Your task to perform on an android device: Go to privacy settings Image 0: 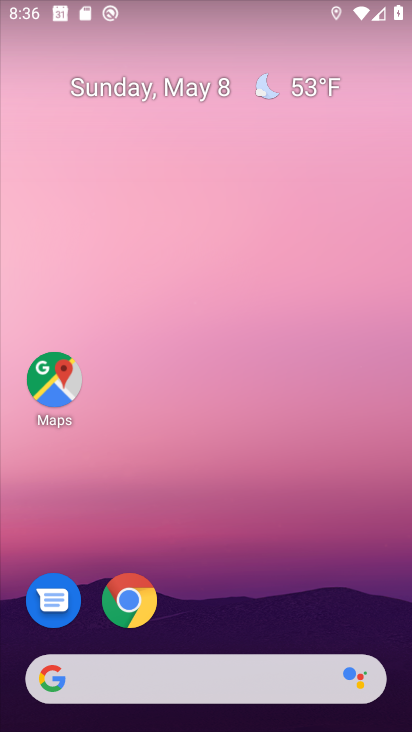
Step 0: drag from (213, 624) to (288, 146)
Your task to perform on an android device: Go to privacy settings Image 1: 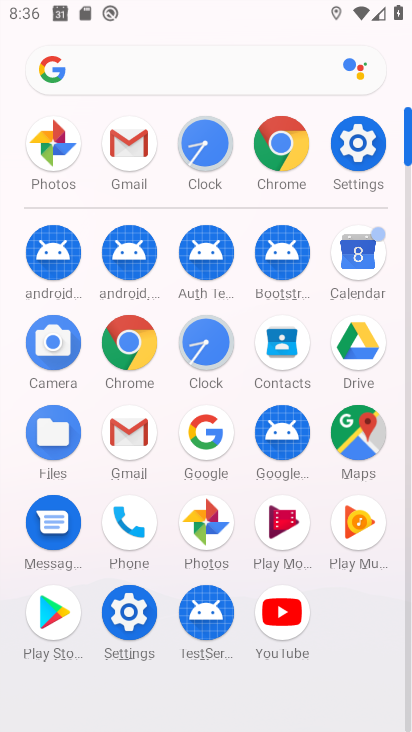
Step 1: click (368, 150)
Your task to perform on an android device: Go to privacy settings Image 2: 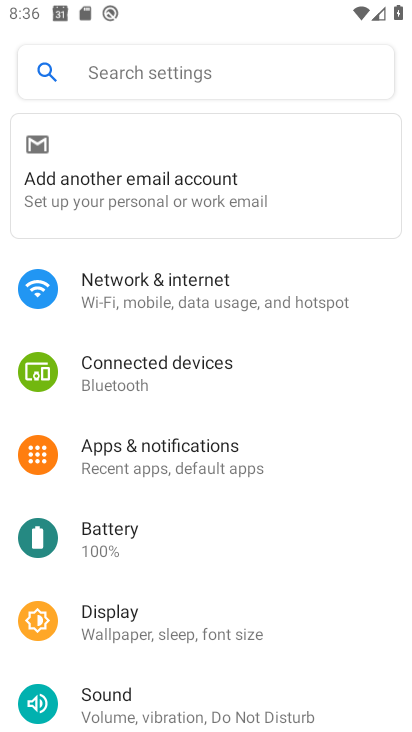
Step 2: drag from (169, 569) to (169, 177)
Your task to perform on an android device: Go to privacy settings Image 3: 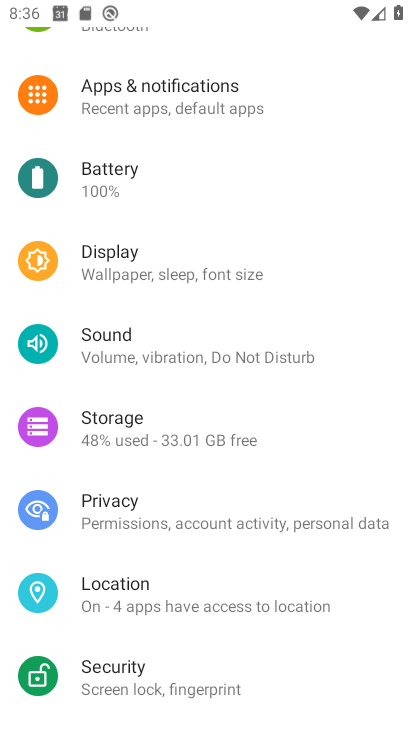
Step 3: drag from (96, 634) to (71, 440)
Your task to perform on an android device: Go to privacy settings Image 4: 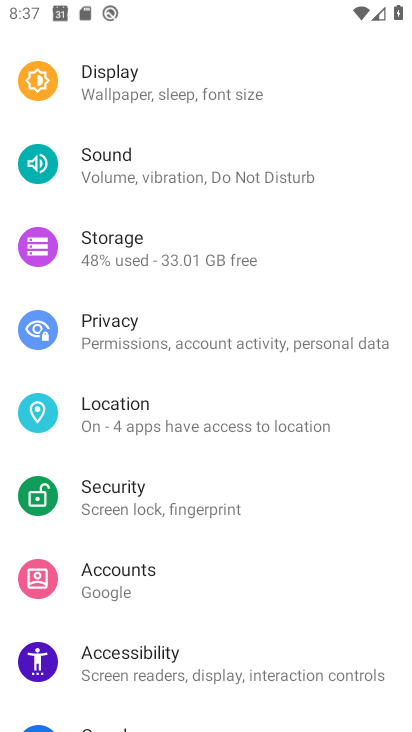
Step 4: drag from (218, 576) to (209, 322)
Your task to perform on an android device: Go to privacy settings Image 5: 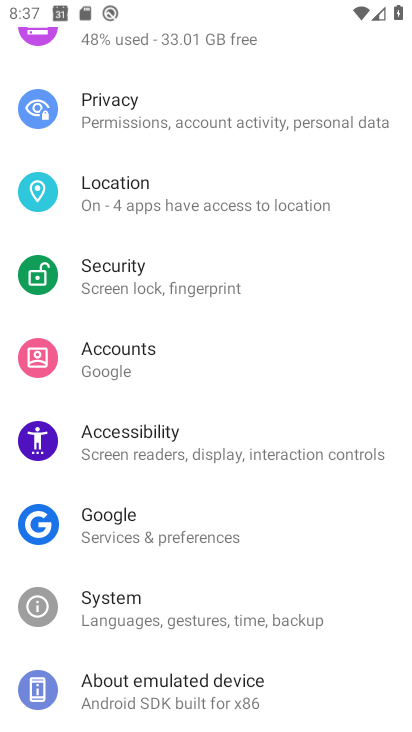
Step 5: click (153, 86)
Your task to perform on an android device: Go to privacy settings Image 6: 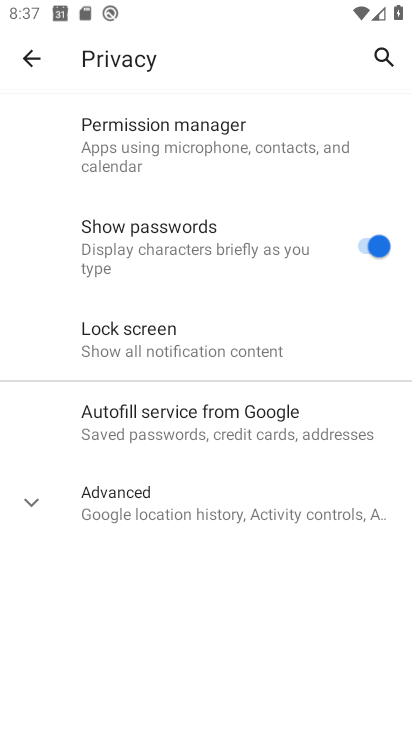
Step 6: task complete